Your task to perform on an android device: Open CNN.com Image 0: 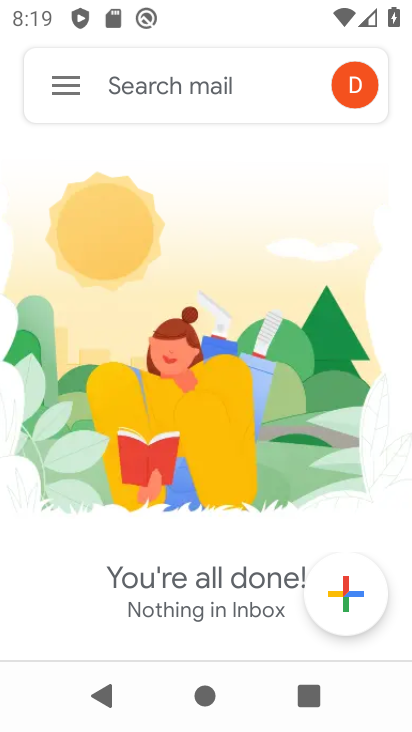
Step 0: press home button
Your task to perform on an android device: Open CNN.com Image 1: 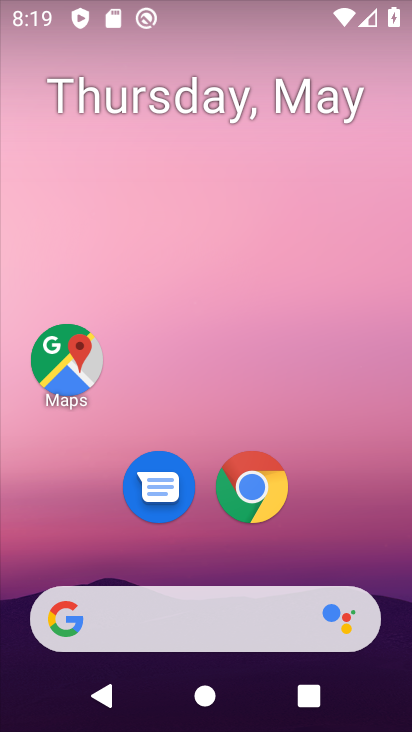
Step 1: click (190, 622)
Your task to perform on an android device: Open CNN.com Image 2: 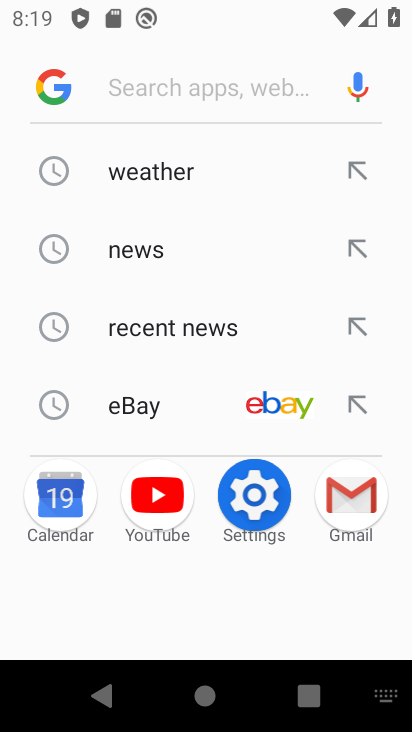
Step 2: type "cnn.com"
Your task to perform on an android device: Open CNN.com Image 3: 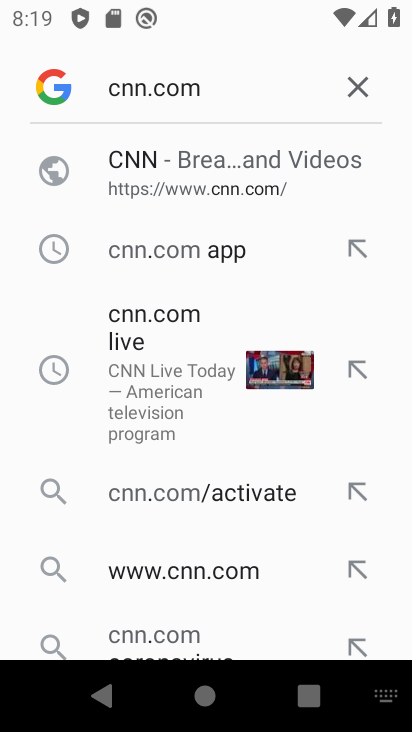
Step 3: click (228, 158)
Your task to perform on an android device: Open CNN.com Image 4: 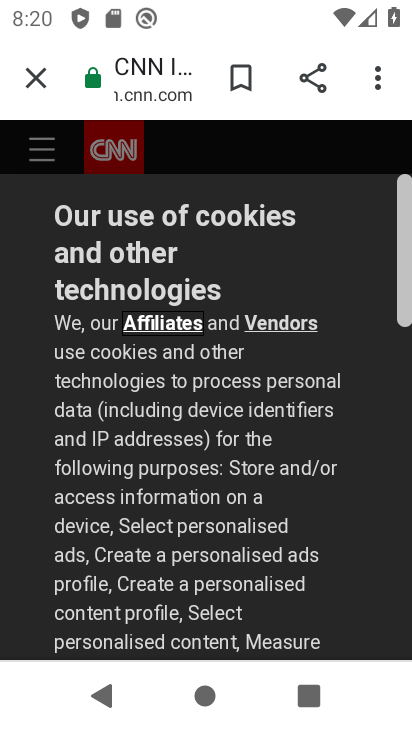
Step 4: task complete